Your task to perform on an android device: toggle improve location accuracy Image 0: 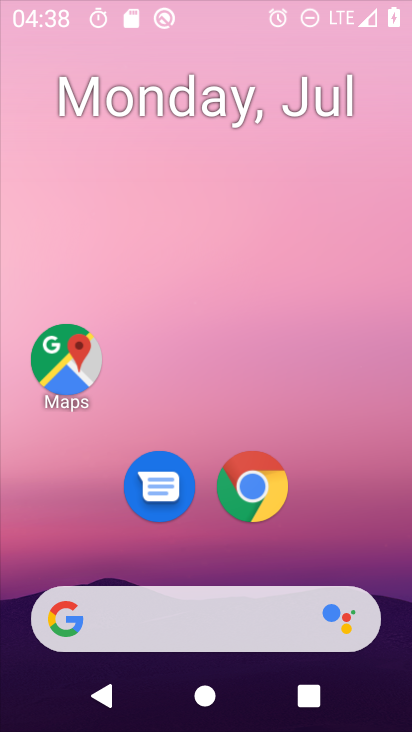
Step 0: drag from (173, 15) to (313, 0)
Your task to perform on an android device: toggle improve location accuracy Image 1: 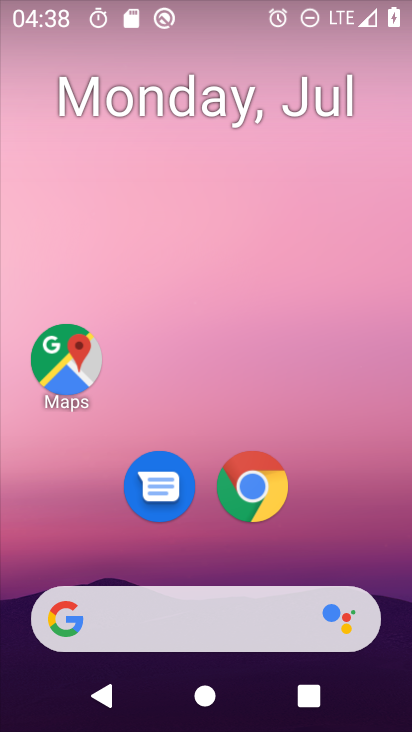
Step 1: drag from (92, 519) to (254, 2)
Your task to perform on an android device: toggle improve location accuracy Image 2: 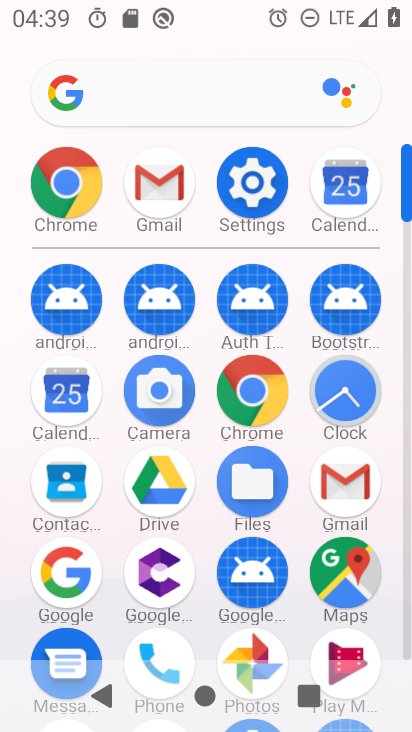
Step 2: click (230, 173)
Your task to perform on an android device: toggle improve location accuracy Image 3: 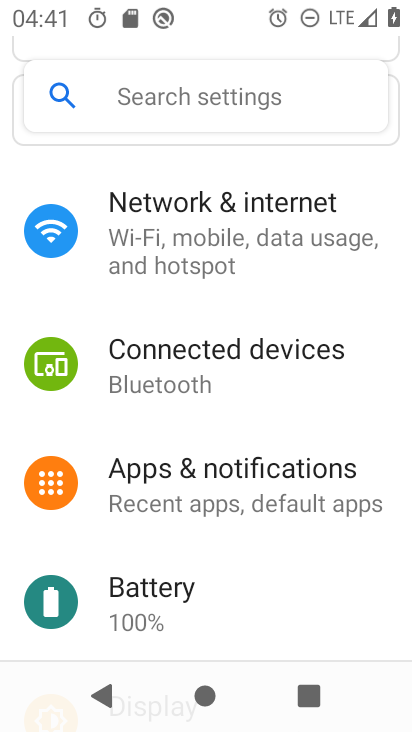
Step 3: drag from (124, 595) to (181, 56)
Your task to perform on an android device: toggle improve location accuracy Image 4: 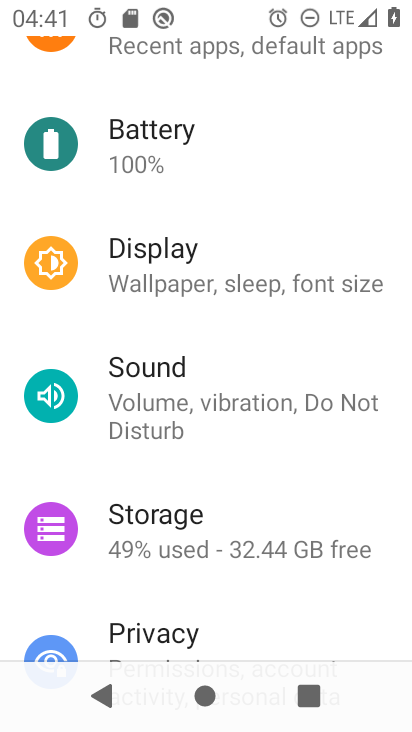
Step 4: drag from (222, 152) to (300, 89)
Your task to perform on an android device: toggle improve location accuracy Image 5: 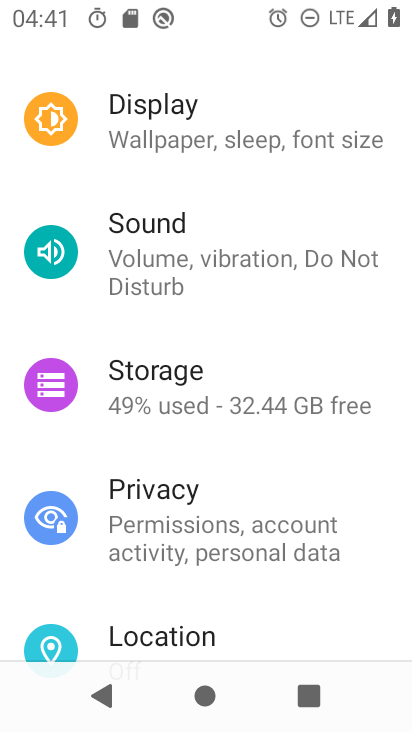
Step 5: click (158, 629)
Your task to perform on an android device: toggle improve location accuracy Image 6: 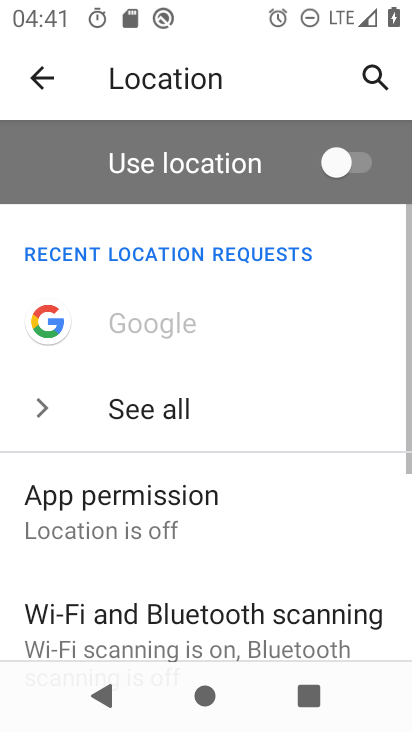
Step 6: drag from (145, 598) to (276, 79)
Your task to perform on an android device: toggle improve location accuracy Image 7: 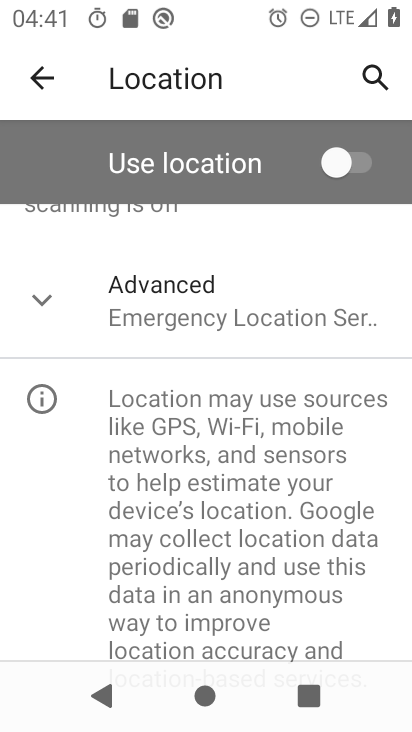
Step 7: click (205, 319)
Your task to perform on an android device: toggle improve location accuracy Image 8: 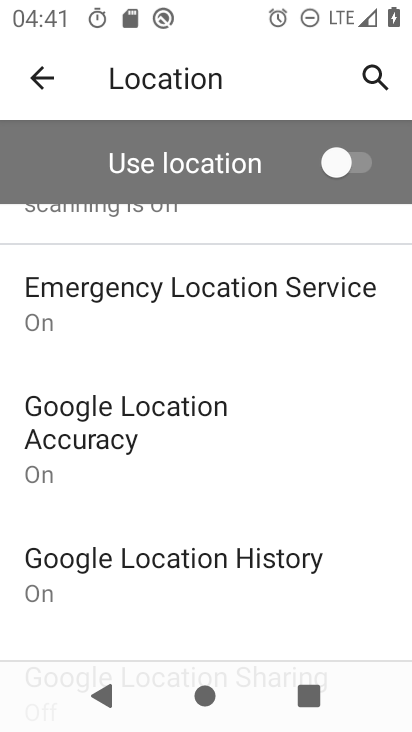
Step 8: click (120, 395)
Your task to perform on an android device: toggle improve location accuracy Image 9: 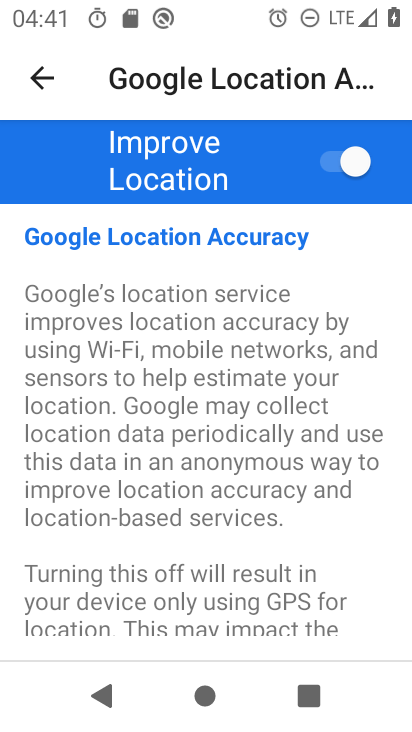
Step 9: click (343, 155)
Your task to perform on an android device: toggle improve location accuracy Image 10: 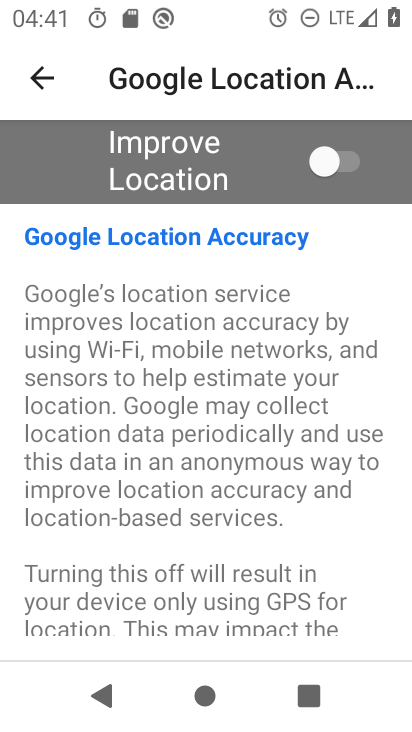
Step 10: task complete